Your task to perform on an android device: Open Google Chrome and click the shortcut for Amazon.com Image 0: 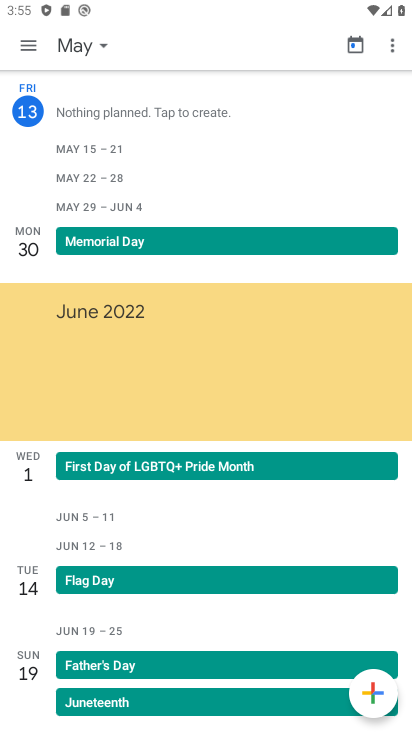
Step 0: press home button
Your task to perform on an android device: Open Google Chrome and click the shortcut for Amazon.com Image 1: 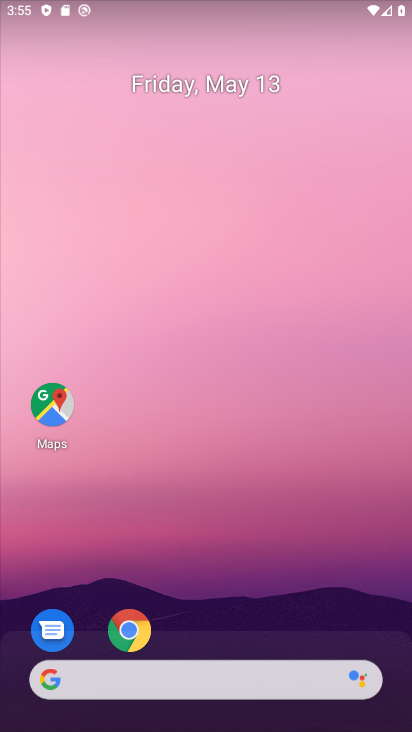
Step 1: click (132, 627)
Your task to perform on an android device: Open Google Chrome and click the shortcut for Amazon.com Image 2: 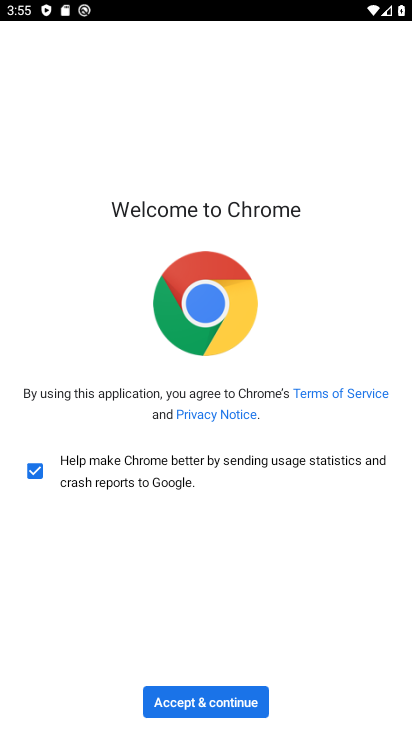
Step 2: click (210, 702)
Your task to perform on an android device: Open Google Chrome and click the shortcut for Amazon.com Image 3: 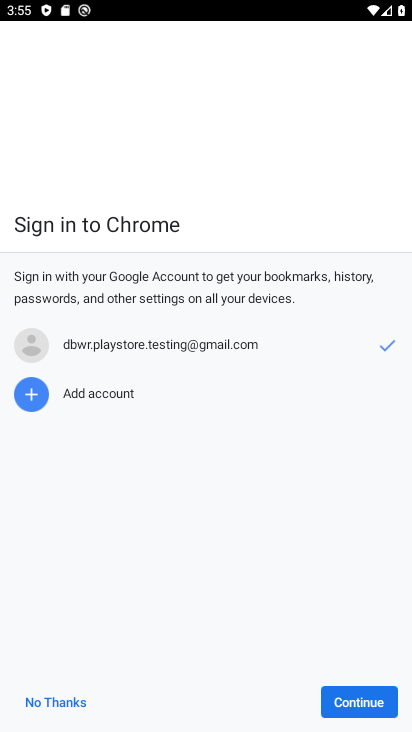
Step 3: click (351, 698)
Your task to perform on an android device: Open Google Chrome and click the shortcut for Amazon.com Image 4: 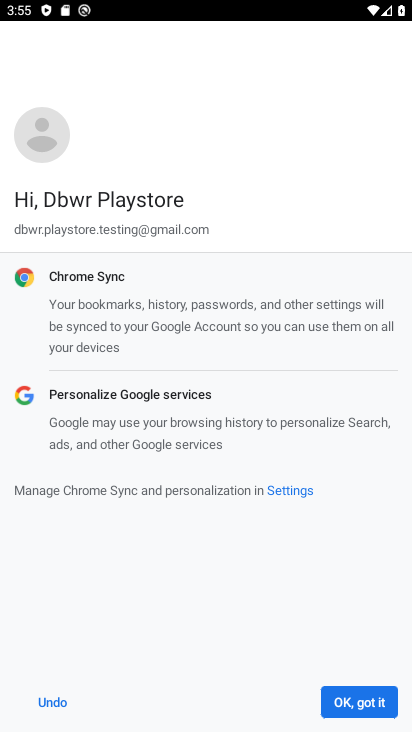
Step 4: click (345, 700)
Your task to perform on an android device: Open Google Chrome and click the shortcut for Amazon.com Image 5: 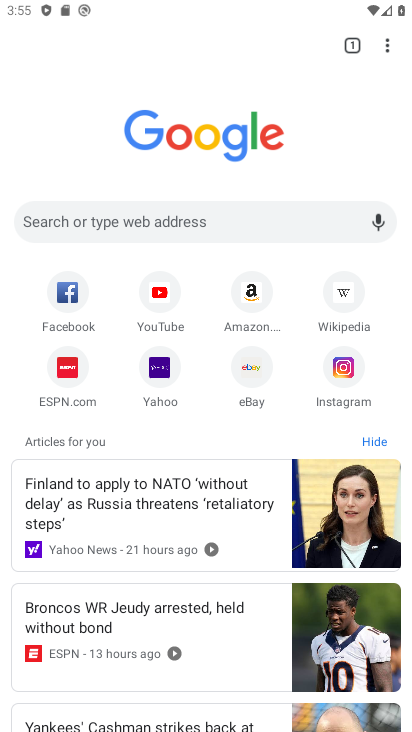
Step 5: click (244, 295)
Your task to perform on an android device: Open Google Chrome and click the shortcut for Amazon.com Image 6: 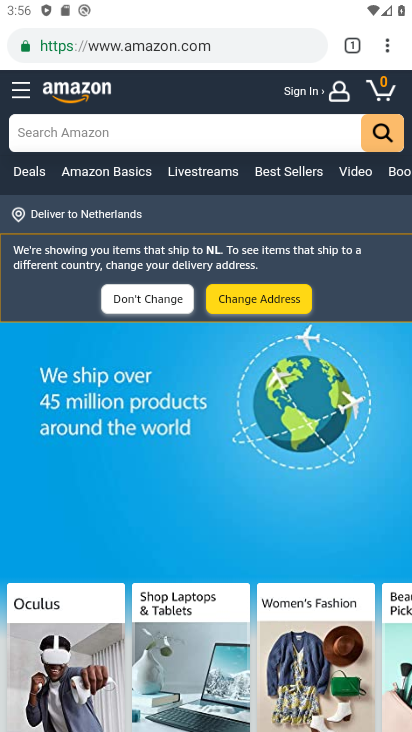
Step 6: task complete